Your task to perform on an android device: change text size in settings app Image 0: 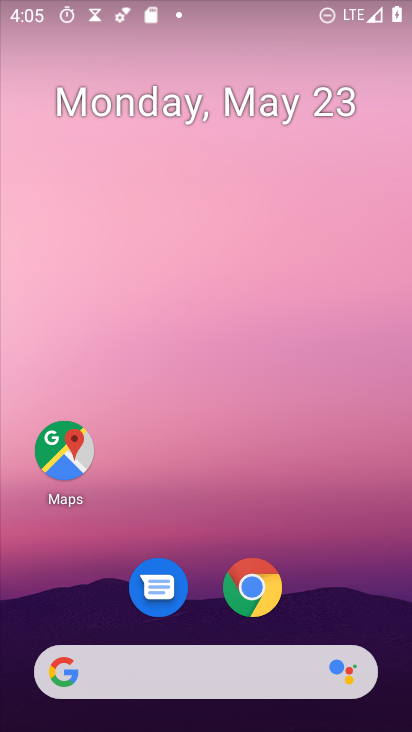
Step 0: drag from (201, 599) to (178, 10)
Your task to perform on an android device: change text size in settings app Image 1: 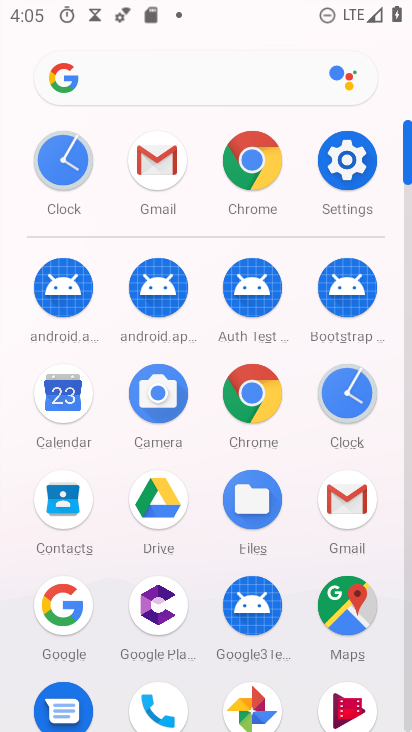
Step 1: click (370, 163)
Your task to perform on an android device: change text size in settings app Image 2: 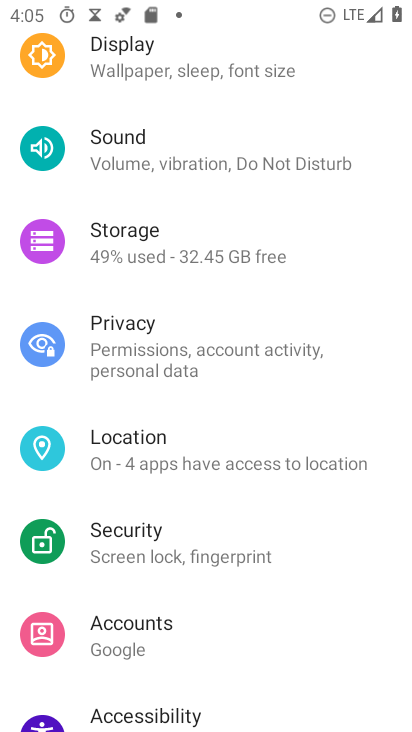
Step 2: click (146, 59)
Your task to perform on an android device: change text size in settings app Image 3: 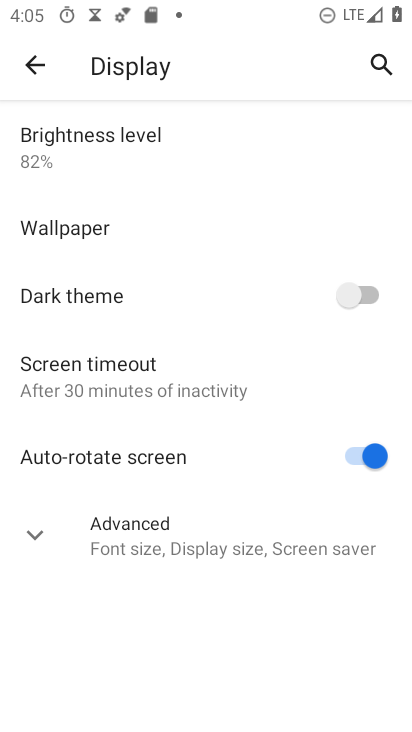
Step 3: click (135, 532)
Your task to perform on an android device: change text size in settings app Image 4: 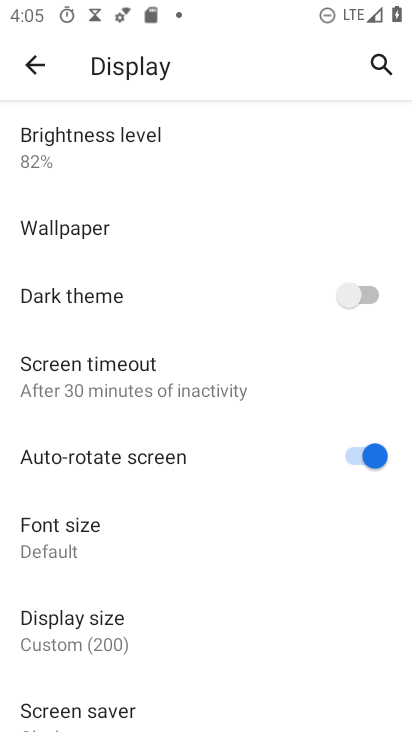
Step 4: click (83, 538)
Your task to perform on an android device: change text size in settings app Image 5: 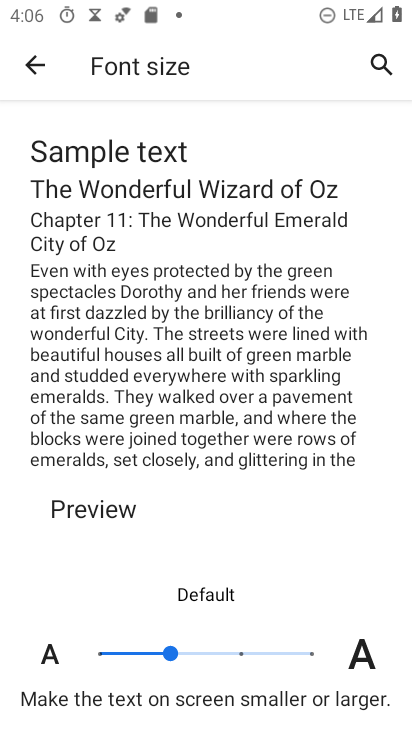
Step 5: click (101, 655)
Your task to perform on an android device: change text size in settings app Image 6: 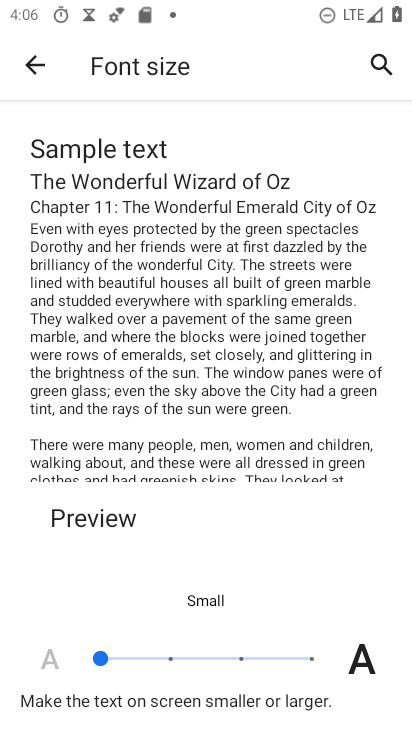
Step 6: task complete